Your task to perform on an android device: check out phone information Image 0: 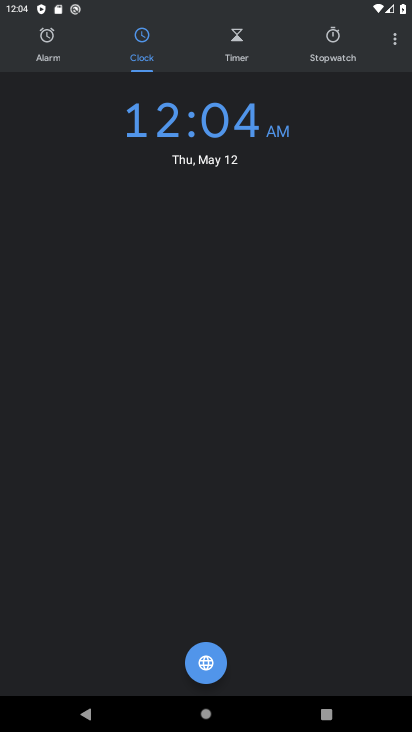
Step 0: press home button
Your task to perform on an android device: check out phone information Image 1: 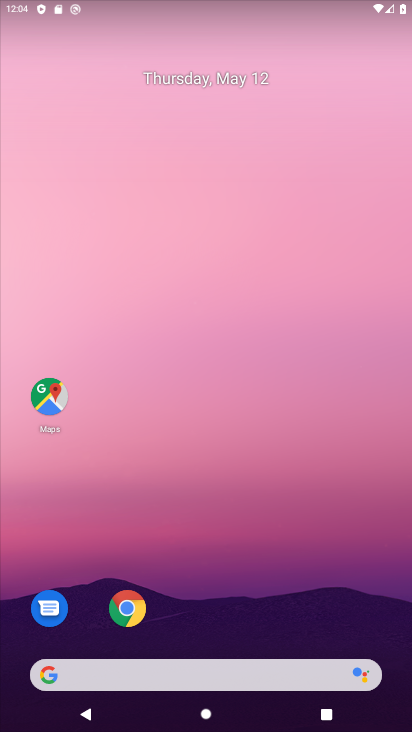
Step 1: drag from (264, 634) to (266, 10)
Your task to perform on an android device: check out phone information Image 2: 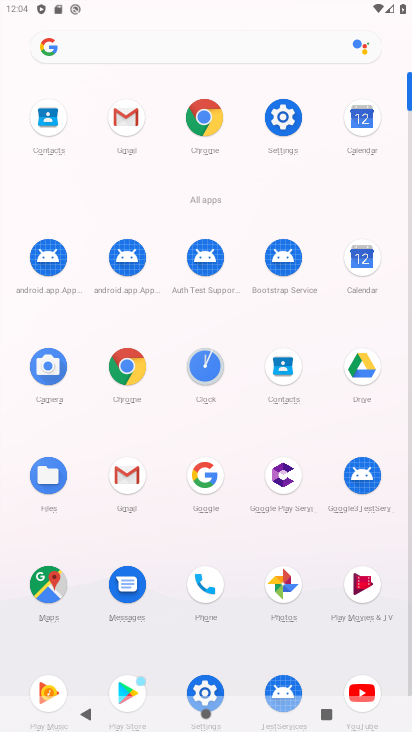
Step 2: click (296, 110)
Your task to perform on an android device: check out phone information Image 3: 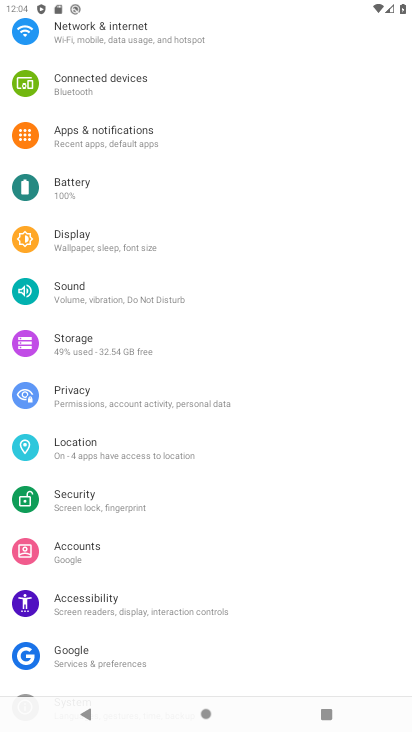
Step 3: drag from (298, 625) to (264, 208)
Your task to perform on an android device: check out phone information Image 4: 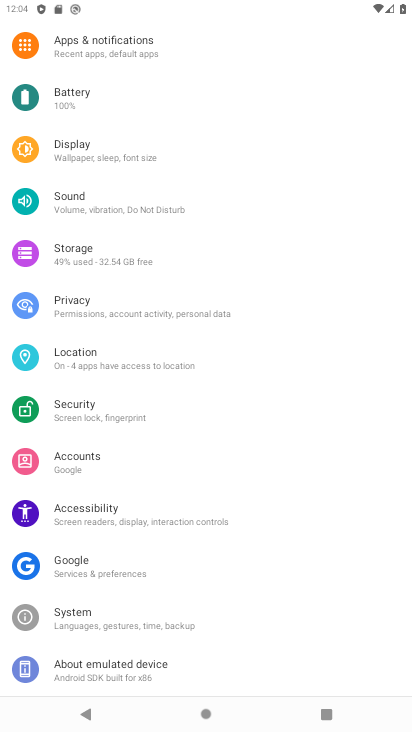
Step 4: click (95, 673)
Your task to perform on an android device: check out phone information Image 5: 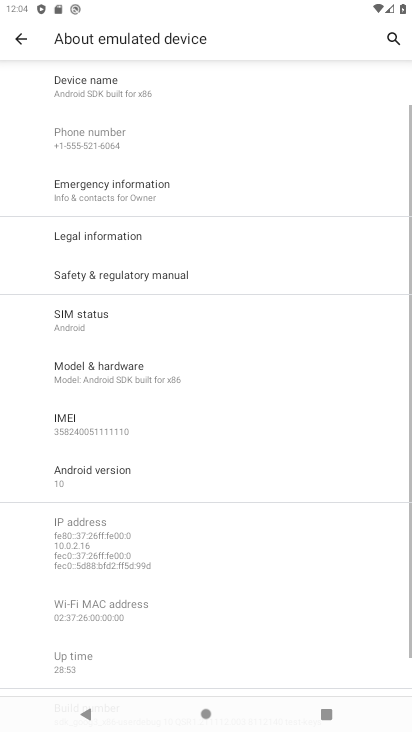
Step 5: task complete